Your task to perform on an android device: Go to eBay Image 0: 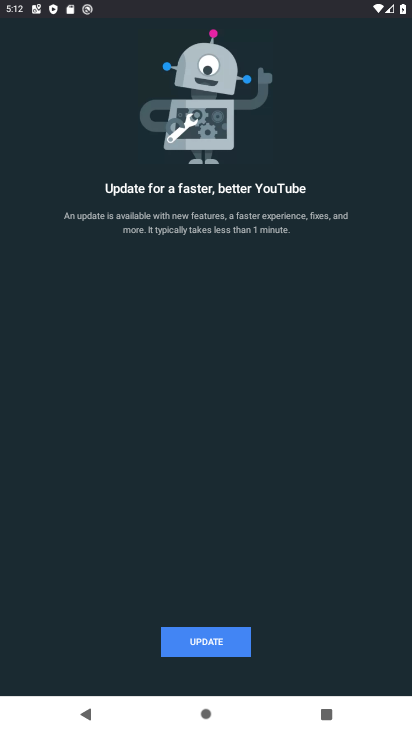
Step 0: press home button
Your task to perform on an android device: Go to eBay Image 1: 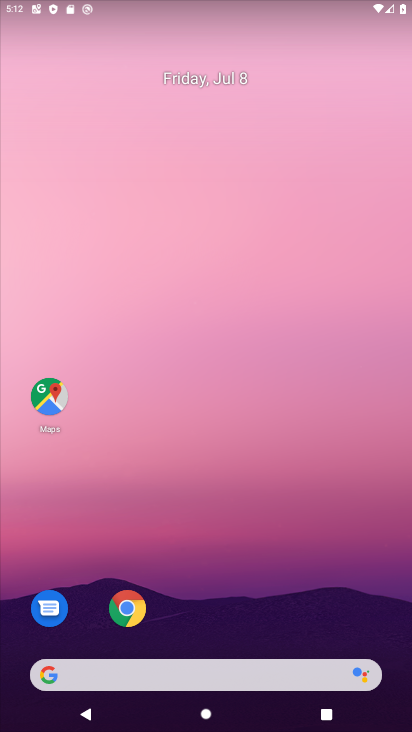
Step 1: drag from (344, 608) to (373, 0)
Your task to perform on an android device: Go to eBay Image 2: 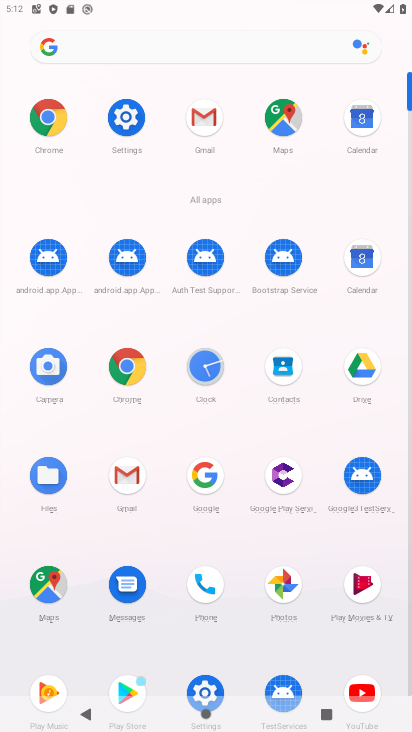
Step 2: click (139, 375)
Your task to perform on an android device: Go to eBay Image 3: 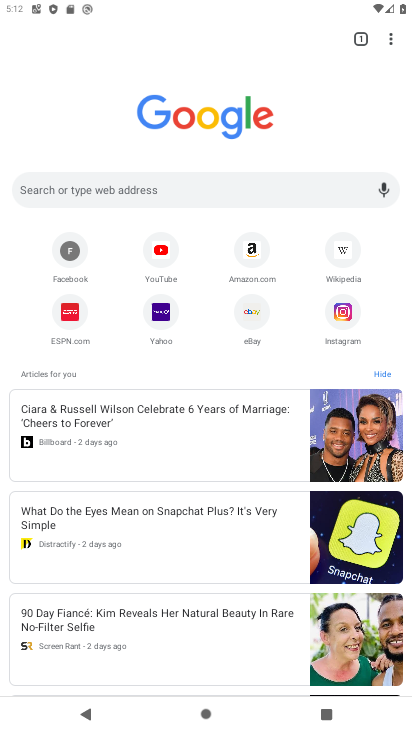
Step 3: click (250, 323)
Your task to perform on an android device: Go to eBay Image 4: 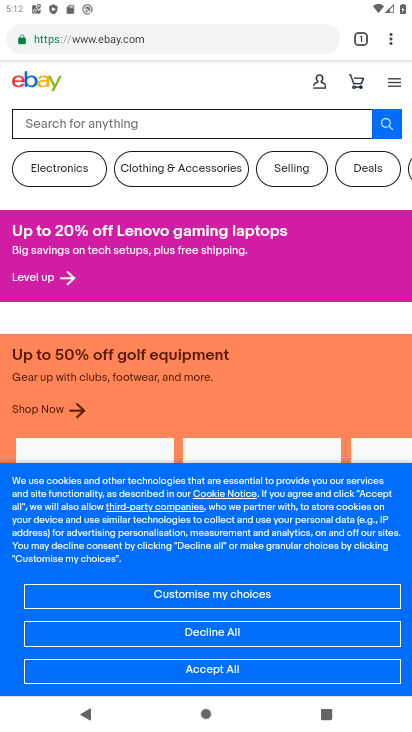
Step 4: task complete